Your task to perform on an android device: Open Youtube and go to "Your channel" Image 0: 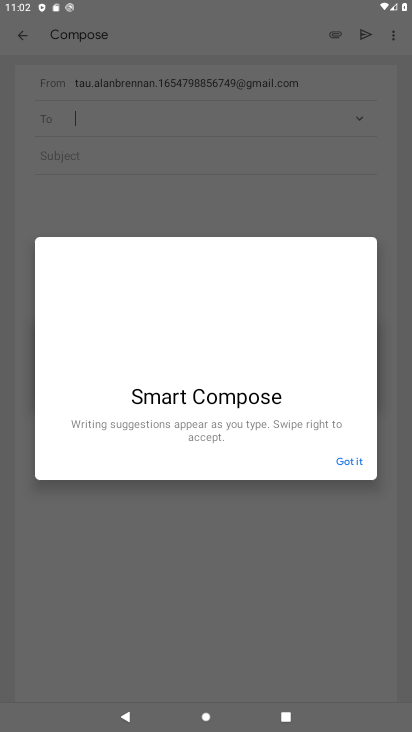
Step 0: press home button
Your task to perform on an android device: Open Youtube and go to "Your channel" Image 1: 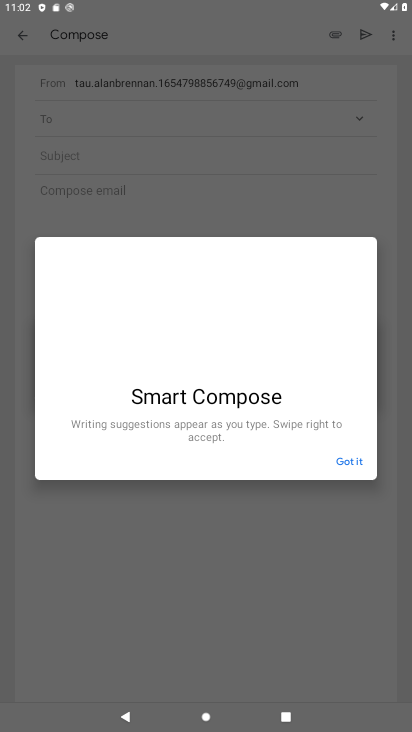
Step 1: press home button
Your task to perform on an android device: Open Youtube and go to "Your channel" Image 2: 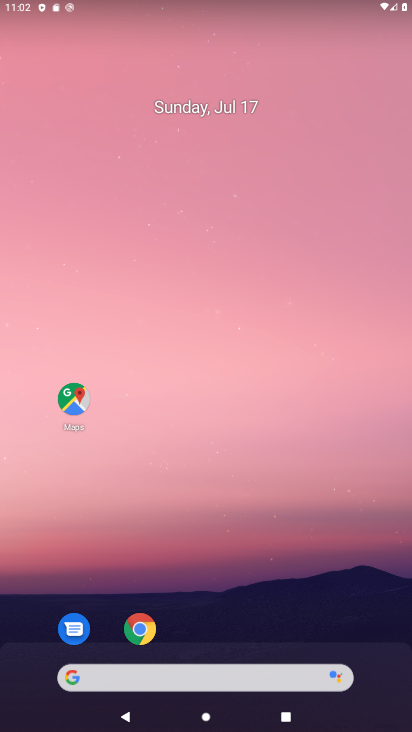
Step 2: press home button
Your task to perform on an android device: Open Youtube and go to "Your channel" Image 3: 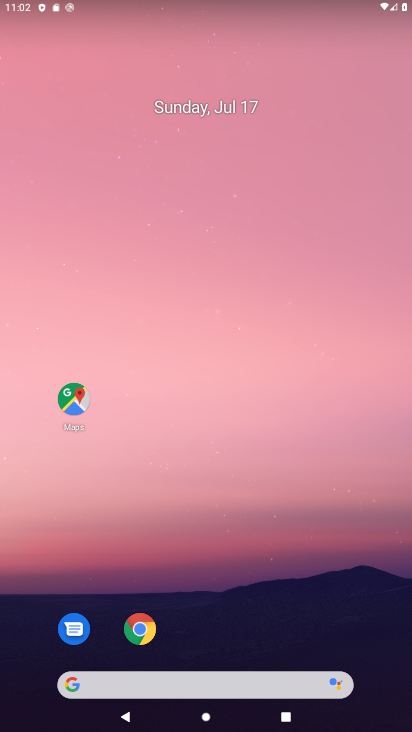
Step 3: drag from (217, 614) to (267, 5)
Your task to perform on an android device: Open Youtube and go to "Your channel" Image 4: 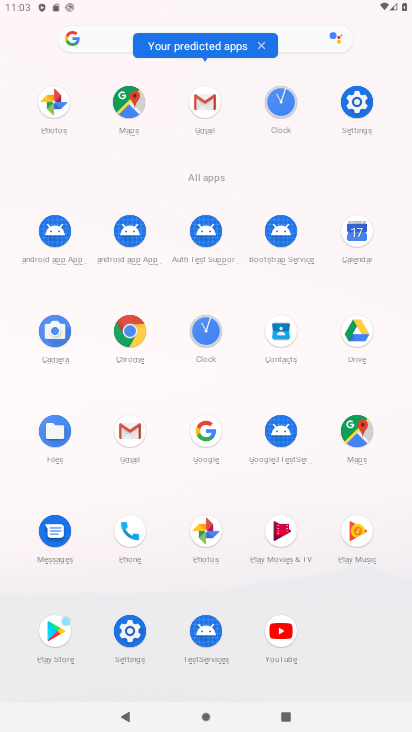
Step 4: click (277, 638)
Your task to perform on an android device: Open Youtube and go to "Your channel" Image 5: 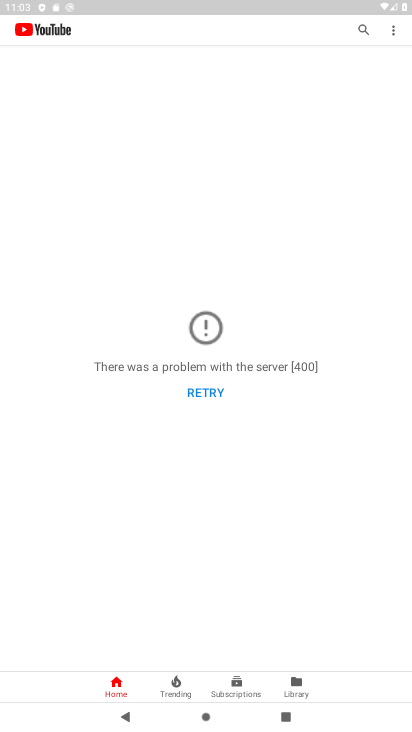
Step 5: task complete